Your task to perform on an android device: open chrome privacy settings Image 0: 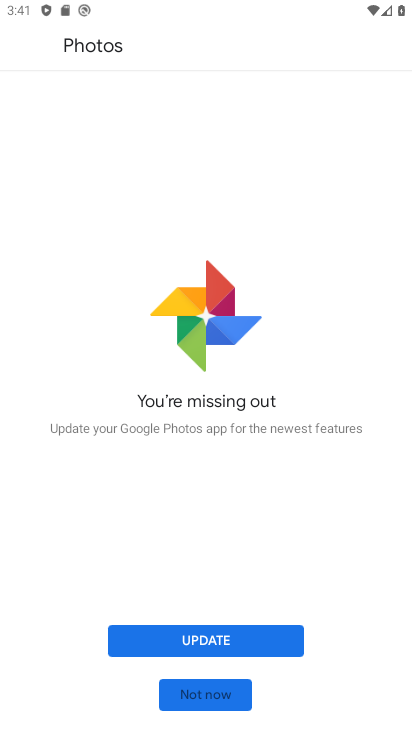
Step 0: press home button
Your task to perform on an android device: open chrome privacy settings Image 1: 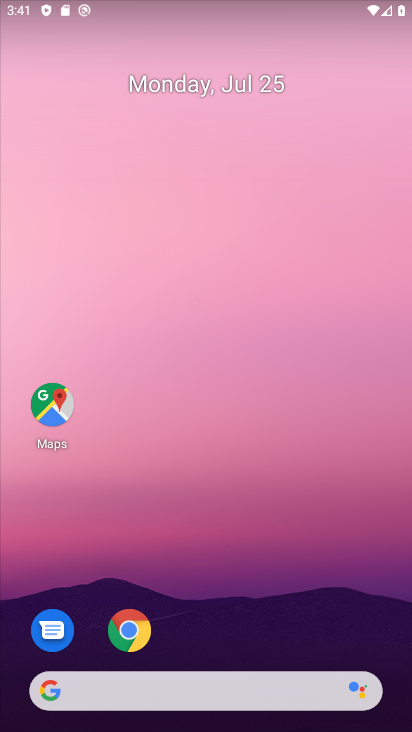
Step 1: drag from (227, 643) to (170, 113)
Your task to perform on an android device: open chrome privacy settings Image 2: 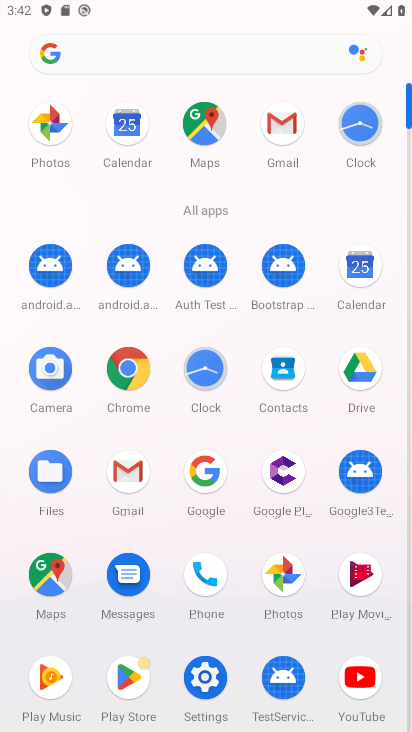
Step 2: click (126, 375)
Your task to perform on an android device: open chrome privacy settings Image 3: 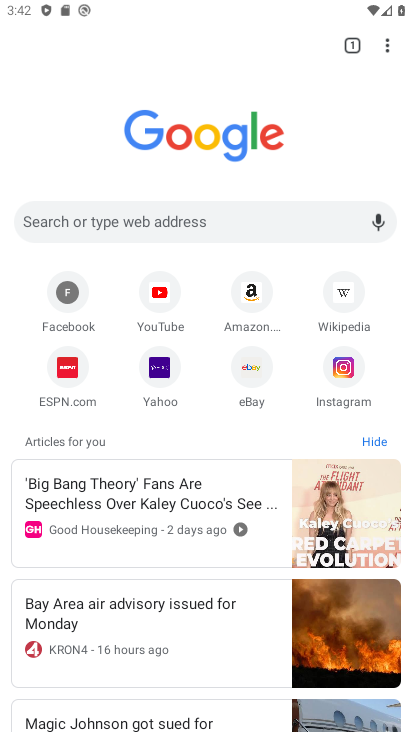
Step 3: click (390, 44)
Your task to perform on an android device: open chrome privacy settings Image 4: 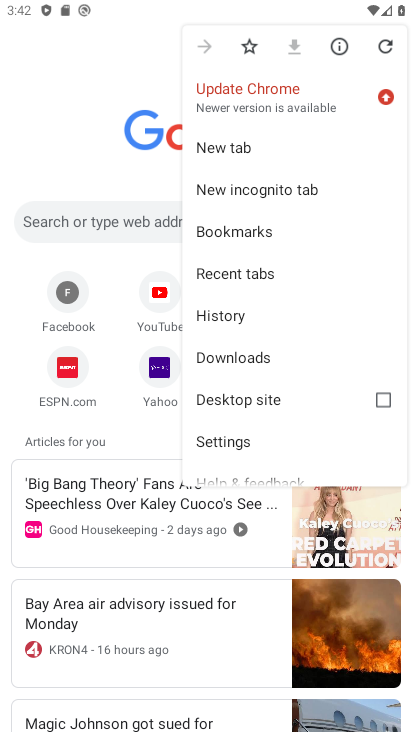
Step 4: click (253, 447)
Your task to perform on an android device: open chrome privacy settings Image 5: 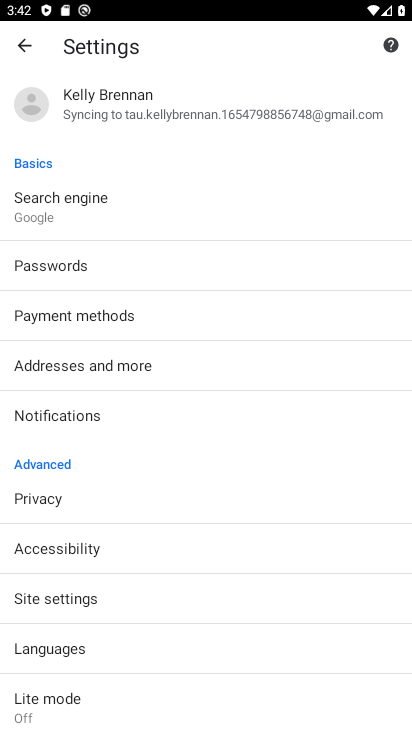
Step 5: click (123, 506)
Your task to perform on an android device: open chrome privacy settings Image 6: 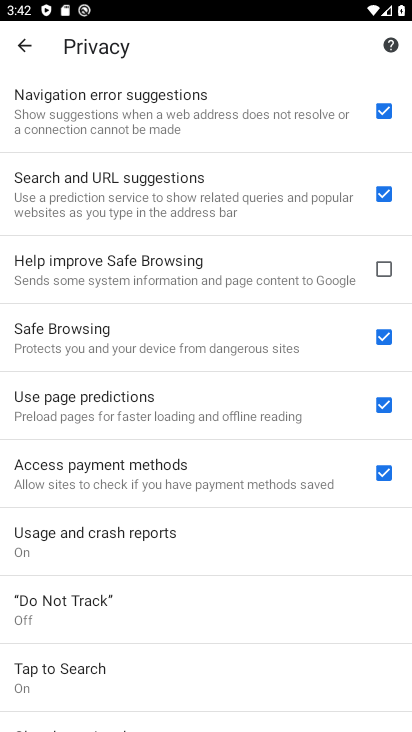
Step 6: task complete